Your task to perform on an android device: change the clock display to digital Image 0: 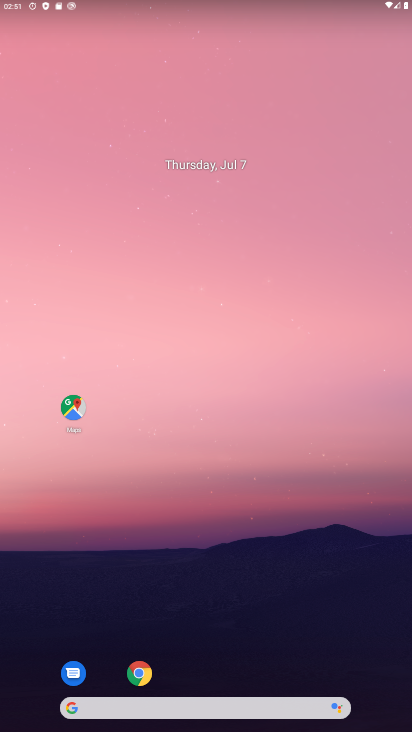
Step 0: drag from (249, 660) to (248, 218)
Your task to perform on an android device: change the clock display to digital Image 1: 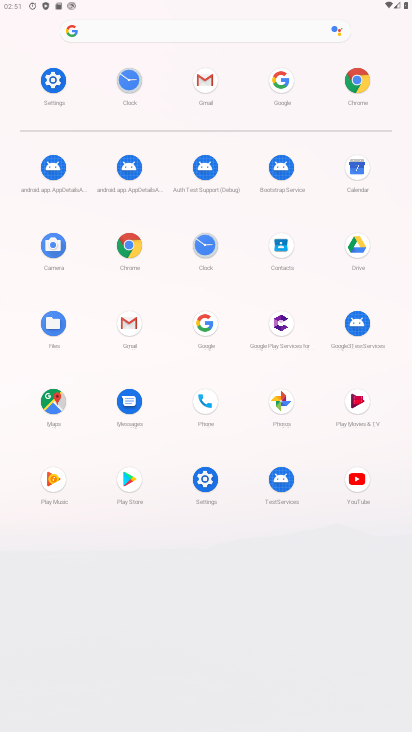
Step 1: click (129, 92)
Your task to perform on an android device: change the clock display to digital Image 2: 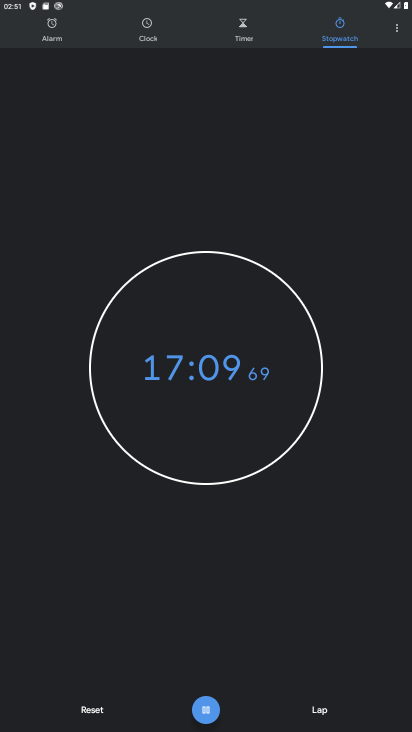
Step 2: click (398, 31)
Your task to perform on an android device: change the clock display to digital Image 3: 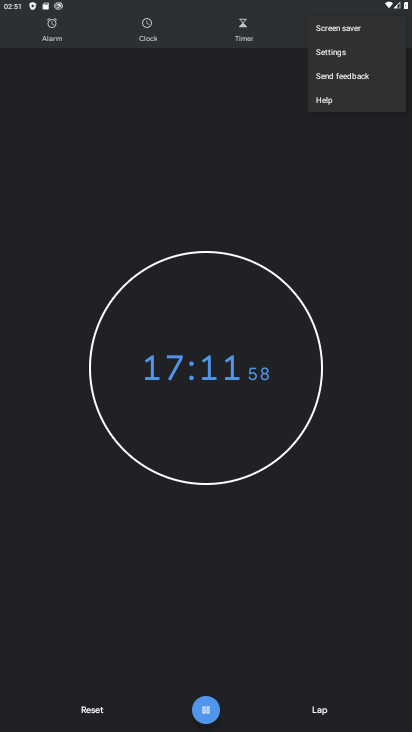
Step 3: click (328, 58)
Your task to perform on an android device: change the clock display to digital Image 4: 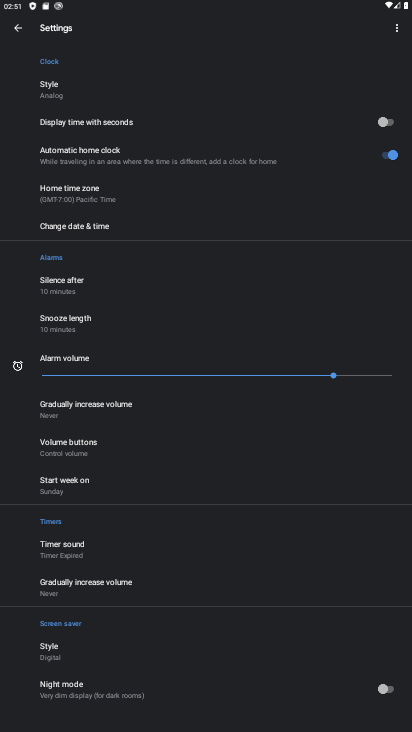
Step 4: click (95, 90)
Your task to perform on an android device: change the clock display to digital Image 5: 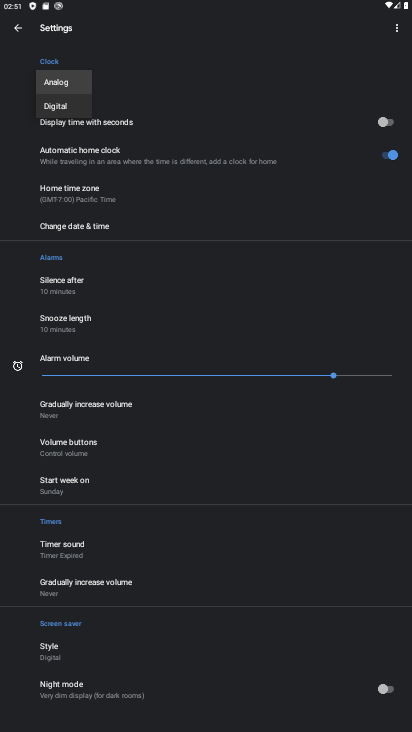
Step 5: click (68, 107)
Your task to perform on an android device: change the clock display to digital Image 6: 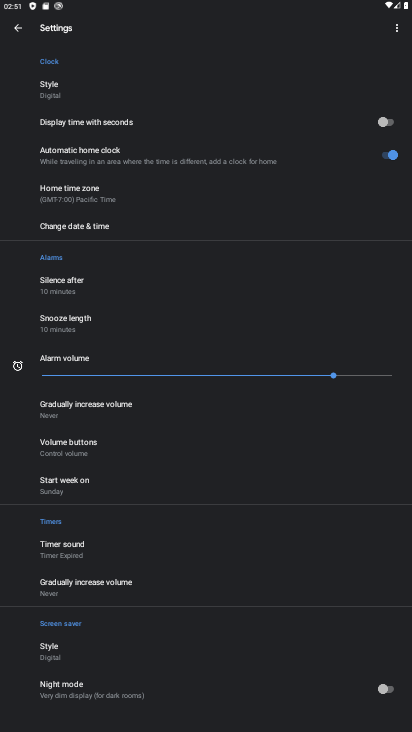
Step 6: task complete